Your task to perform on an android device: see sites visited before in the chrome app Image 0: 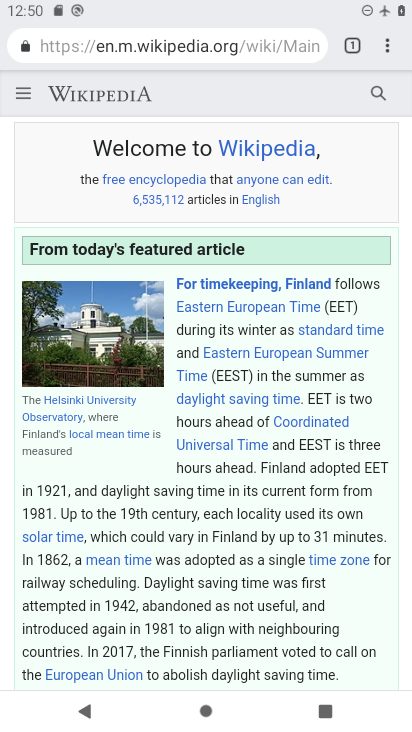
Step 0: press home button
Your task to perform on an android device: see sites visited before in the chrome app Image 1: 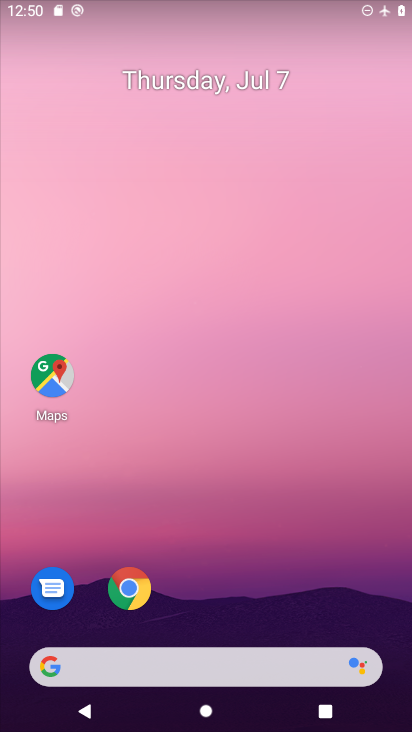
Step 1: drag from (342, 645) to (372, 6)
Your task to perform on an android device: see sites visited before in the chrome app Image 2: 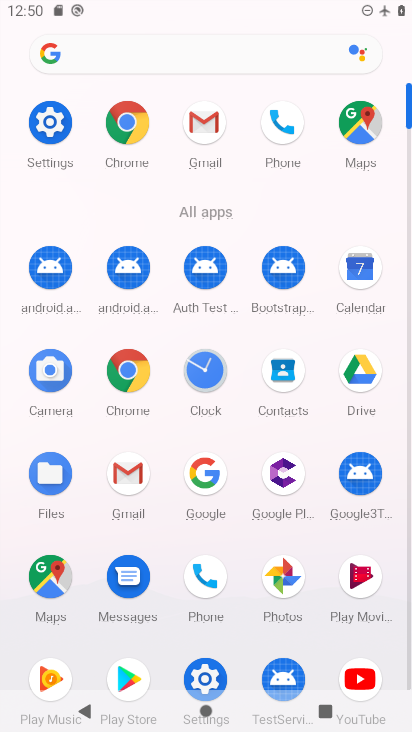
Step 2: click (132, 375)
Your task to perform on an android device: see sites visited before in the chrome app Image 3: 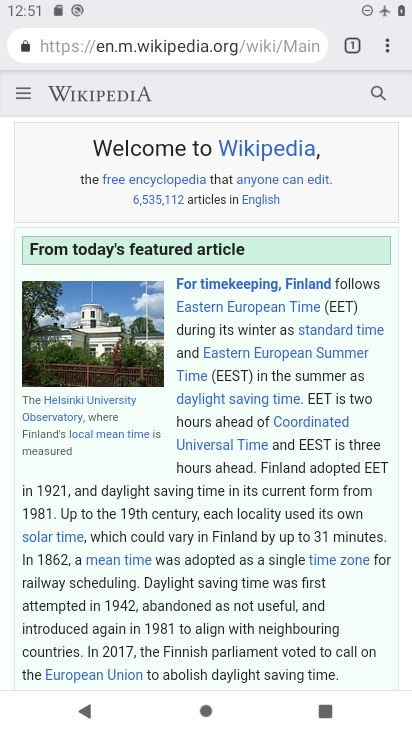
Step 3: task complete